Your task to perform on an android device: turn on javascript in the chrome app Image 0: 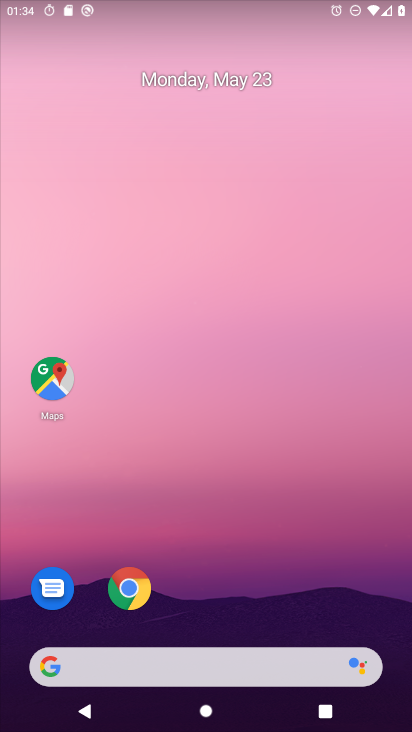
Step 0: drag from (250, 594) to (185, 159)
Your task to perform on an android device: turn on javascript in the chrome app Image 1: 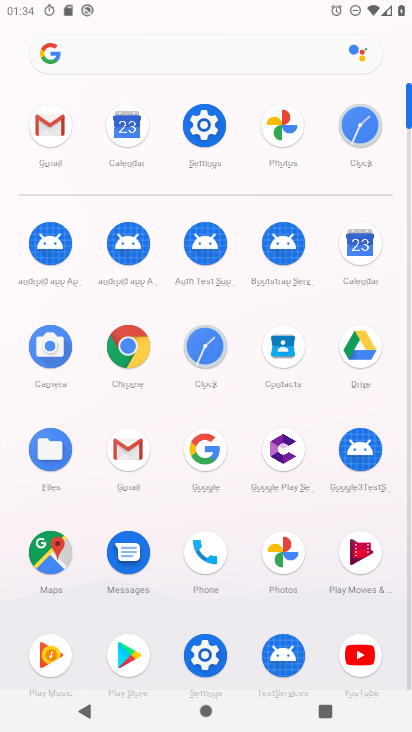
Step 1: click (125, 344)
Your task to perform on an android device: turn on javascript in the chrome app Image 2: 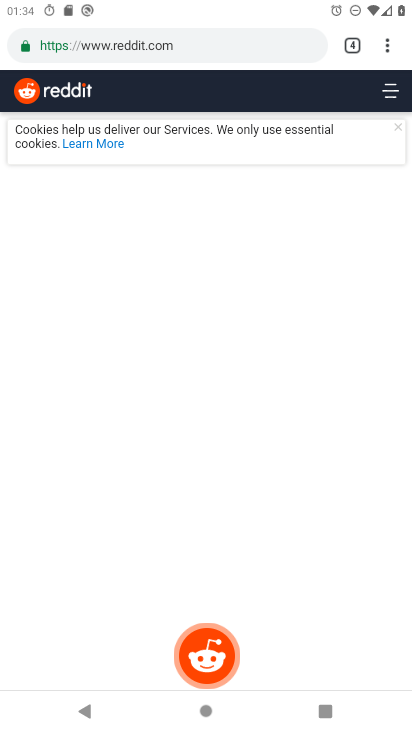
Step 2: click (386, 51)
Your task to perform on an android device: turn on javascript in the chrome app Image 3: 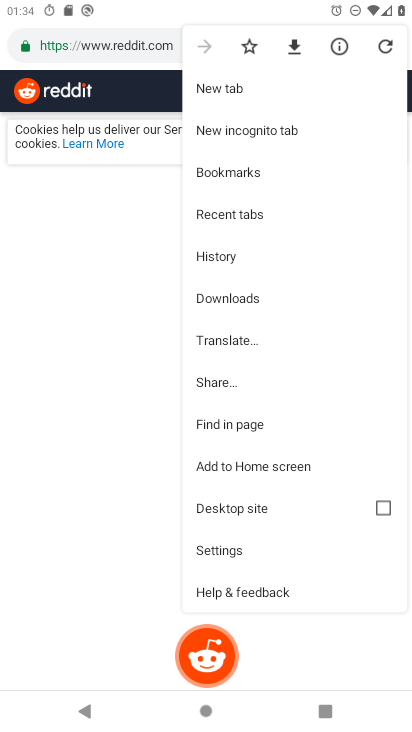
Step 3: click (229, 548)
Your task to perform on an android device: turn on javascript in the chrome app Image 4: 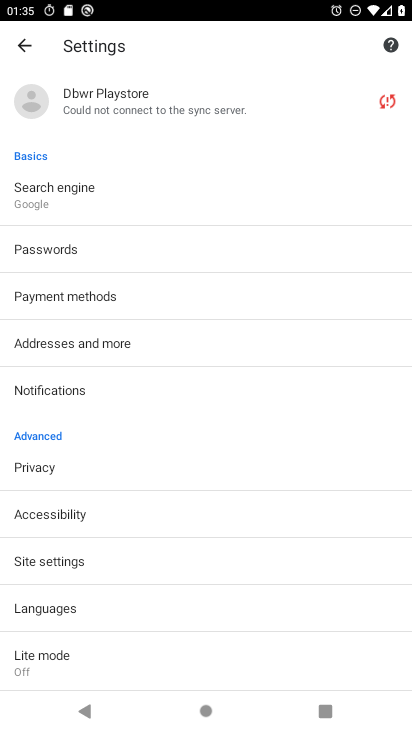
Step 4: click (79, 561)
Your task to perform on an android device: turn on javascript in the chrome app Image 5: 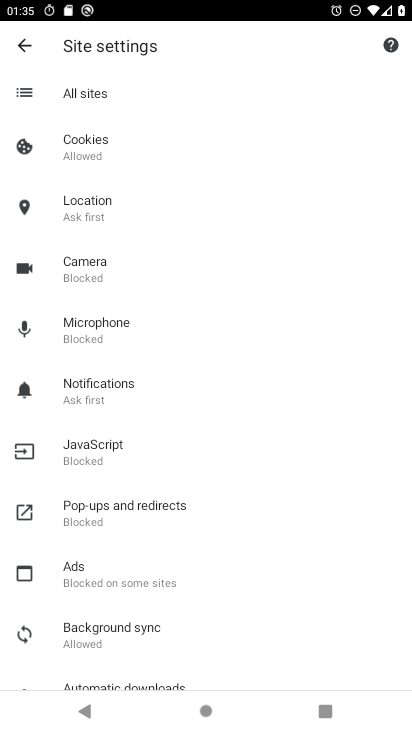
Step 5: click (91, 451)
Your task to perform on an android device: turn on javascript in the chrome app Image 6: 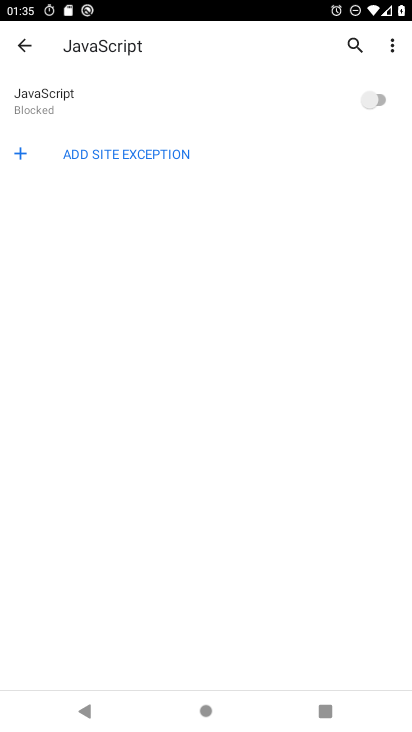
Step 6: click (378, 85)
Your task to perform on an android device: turn on javascript in the chrome app Image 7: 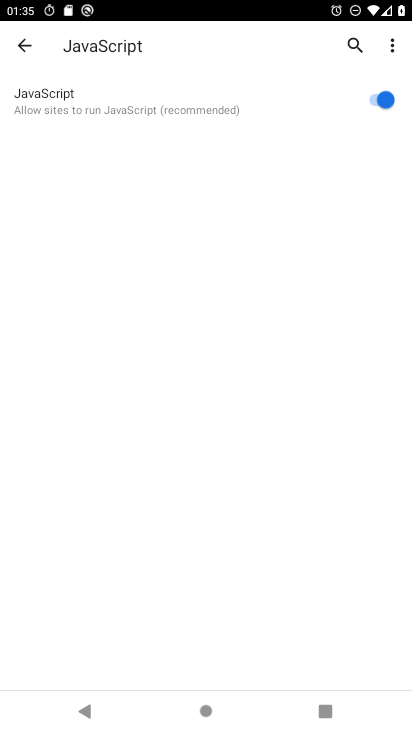
Step 7: task complete